Your task to perform on an android device: delete browsing data in the chrome app Image 0: 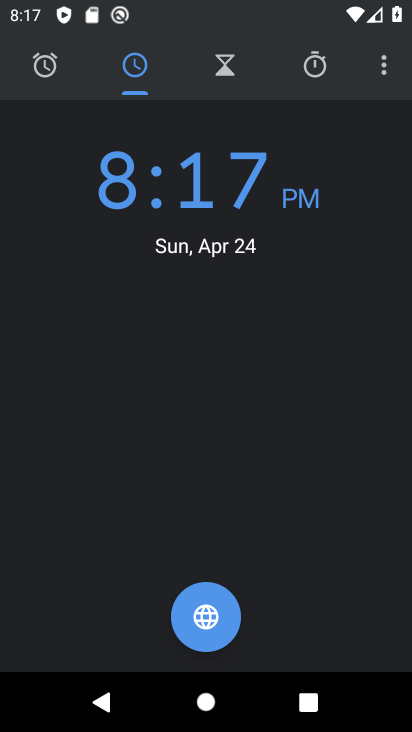
Step 0: press home button
Your task to perform on an android device: delete browsing data in the chrome app Image 1: 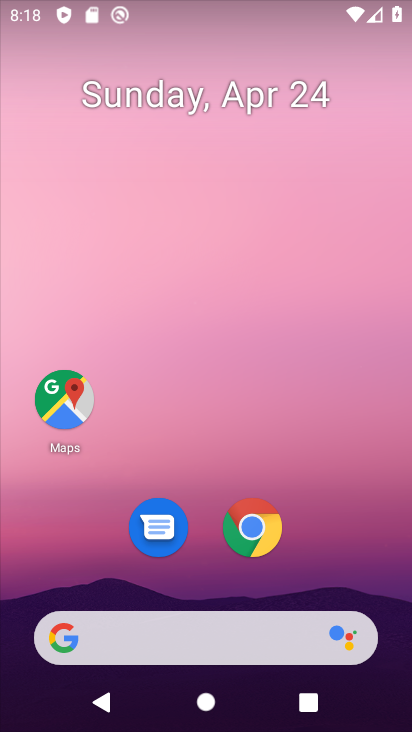
Step 1: click (254, 540)
Your task to perform on an android device: delete browsing data in the chrome app Image 2: 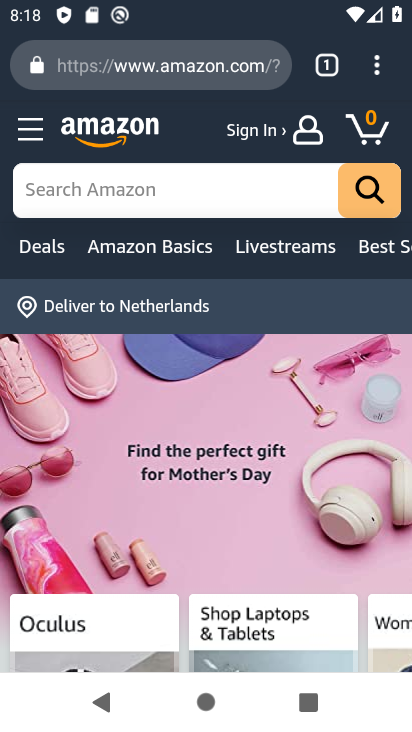
Step 2: click (380, 72)
Your task to perform on an android device: delete browsing data in the chrome app Image 3: 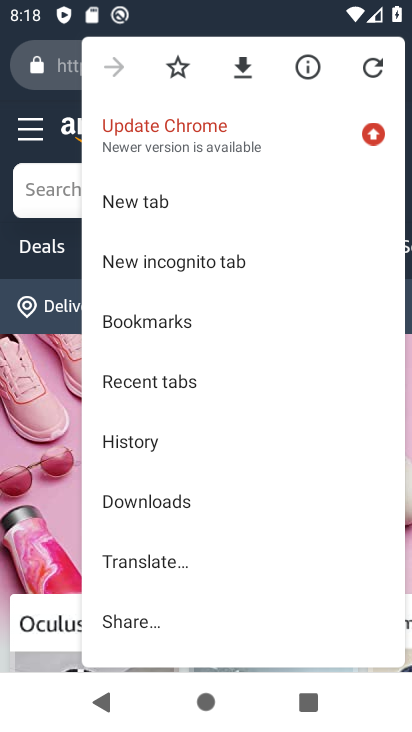
Step 3: drag from (317, 589) to (317, 250)
Your task to perform on an android device: delete browsing data in the chrome app Image 4: 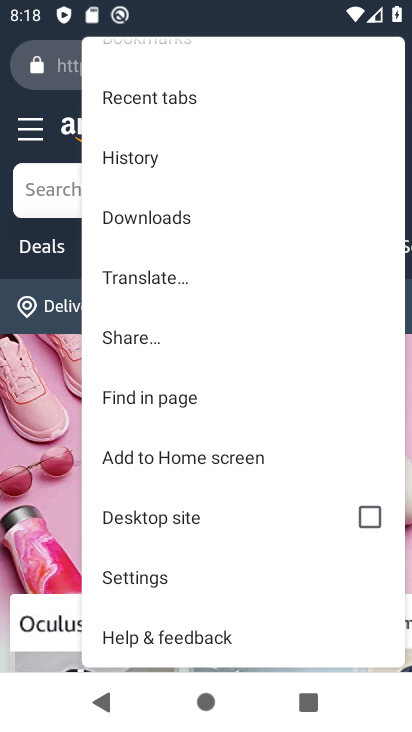
Step 4: click (124, 580)
Your task to perform on an android device: delete browsing data in the chrome app Image 5: 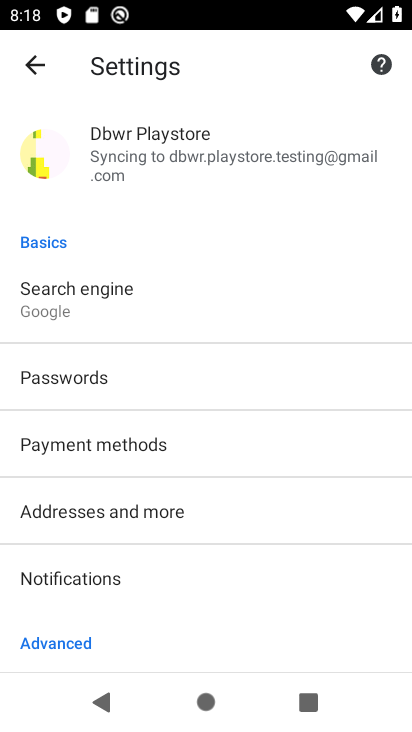
Step 5: drag from (248, 552) to (264, 182)
Your task to perform on an android device: delete browsing data in the chrome app Image 6: 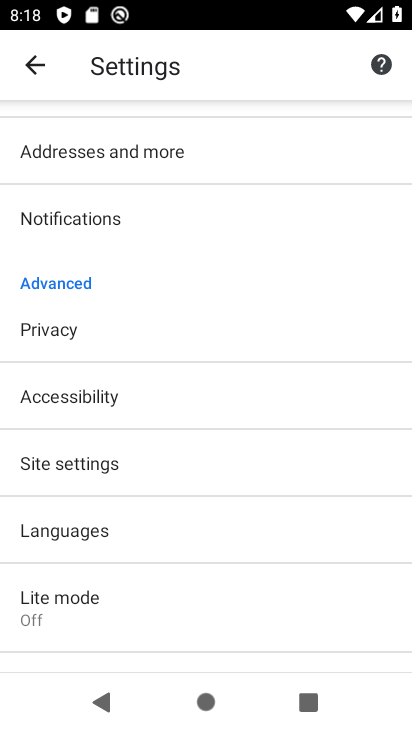
Step 6: click (27, 335)
Your task to perform on an android device: delete browsing data in the chrome app Image 7: 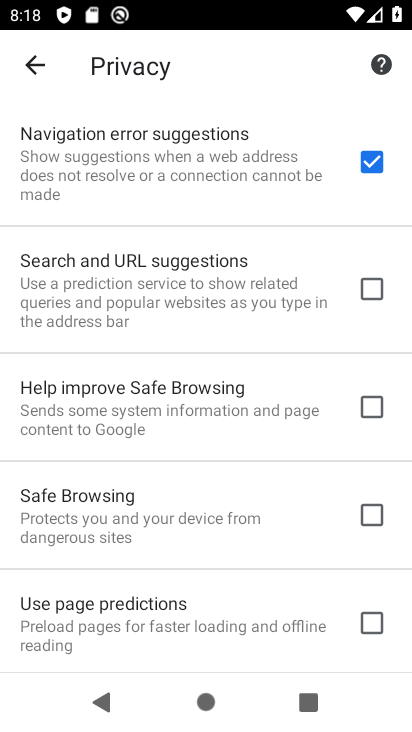
Step 7: drag from (148, 529) to (140, 169)
Your task to perform on an android device: delete browsing data in the chrome app Image 8: 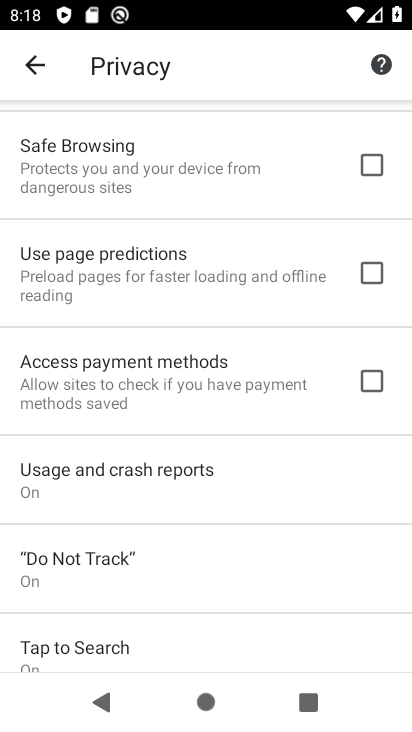
Step 8: drag from (249, 569) to (212, 187)
Your task to perform on an android device: delete browsing data in the chrome app Image 9: 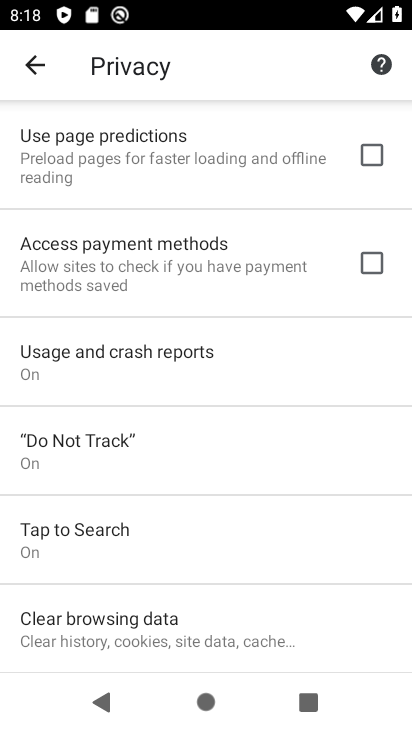
Step 9: click (134, 620)
Your task to perform on an android device: delete browsing data in the chrome app Image 10: 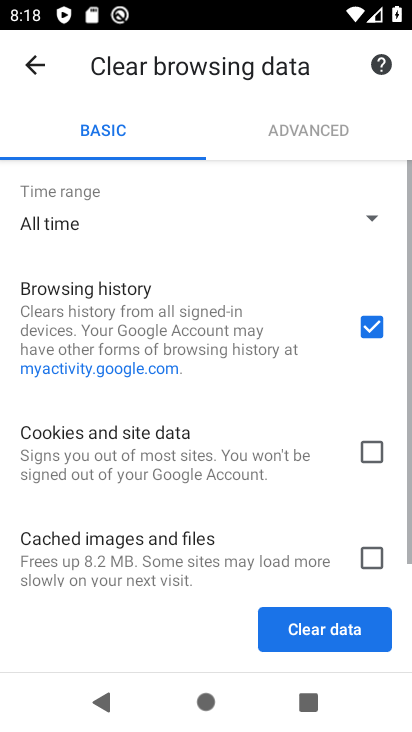
Step 10: click (283, 627)
Your task to perform on an android device: delete browsing data in the chrome app Image 11: 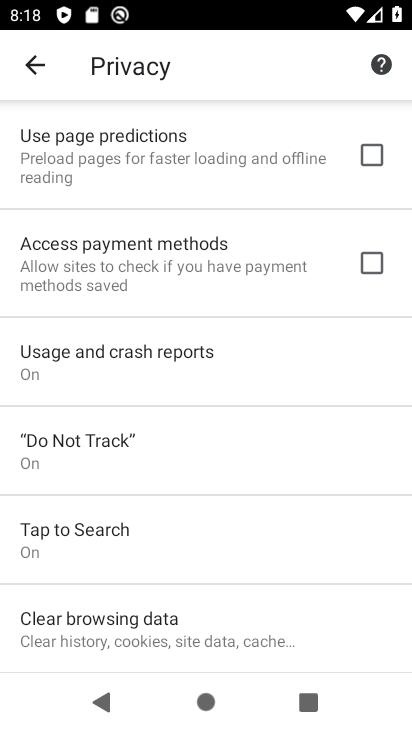
Step 11: task complete